Your task to perform on an android device: check out phone information Image 0: 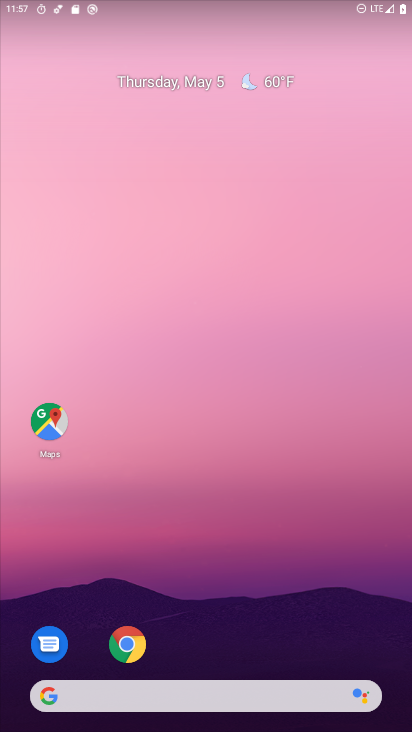
Step 0: drag from (361, 629) to (376, 138)
Your task to perform on an android device: check out phone information Image 1: 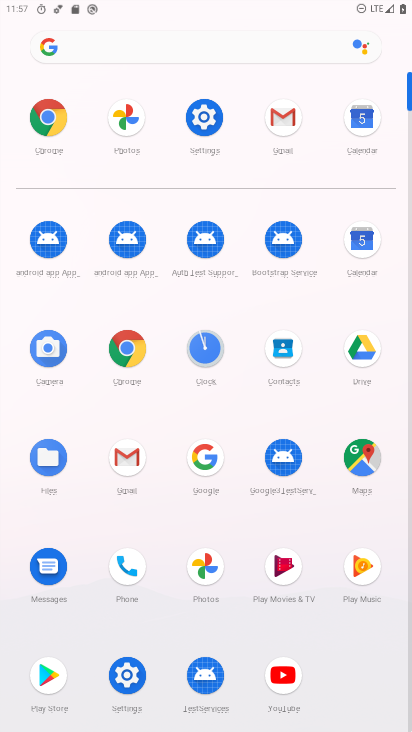
Step 1: click (131, 672)
Your task to perform on an android device: check out phone information Image 2: 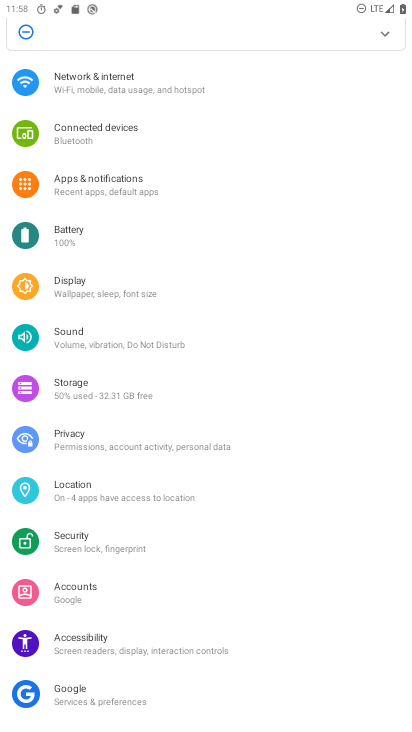
Step 2: drag from (282, 673) to (304, 409)
Your task to perform on an android device: check out phone information Image 3: 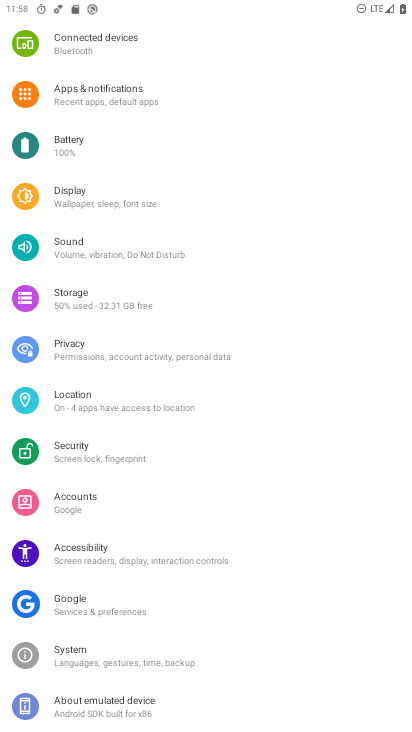
Step 3: drag from (276, 193) to (267, 582)
Your task to perform on an android device: check out phone information Image 4: 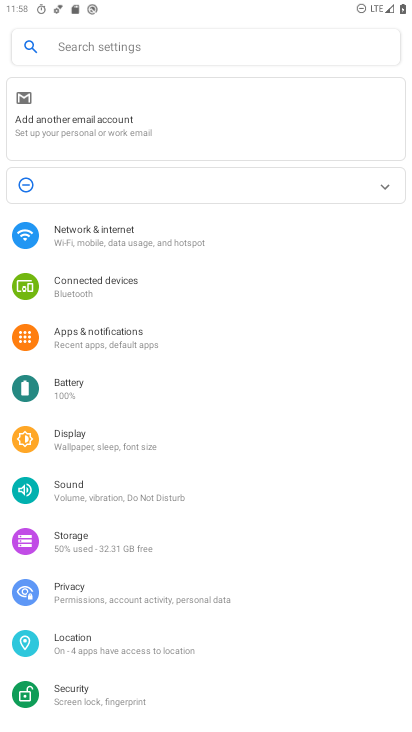
Step 4: drag from (236, 713) to (264, 282)
Your task to perform on an android device: check out phone information Image 5: 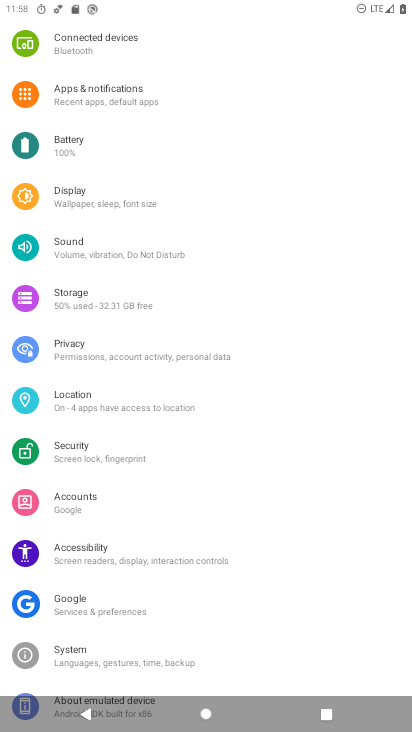
Step 5: drag from (209, 659) to (275, 245)
Your task to perform on an android device: check out phone information Image 6: 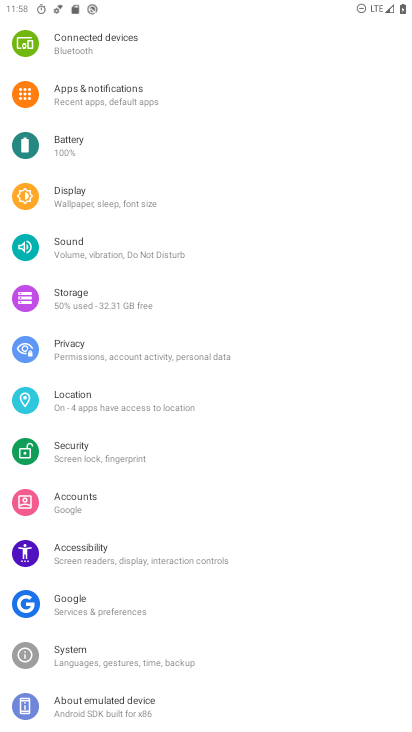
Step 6: click (102, 713)
Your task to perform on an android device: check out phone information Image 7: 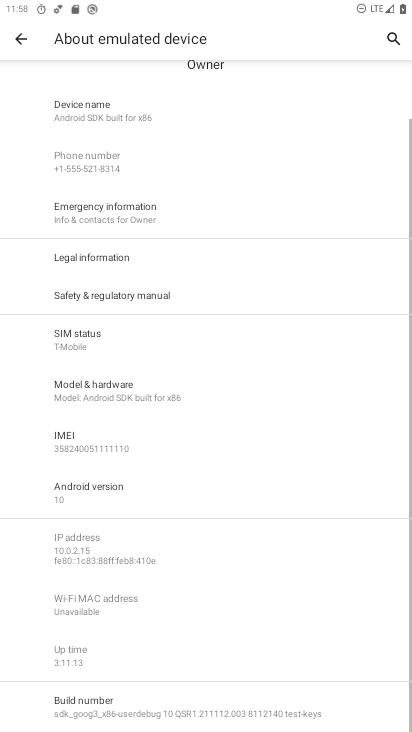
Step 7: task complete